Your task to perform on an android device: Find coffee shops on Maps Image 0: 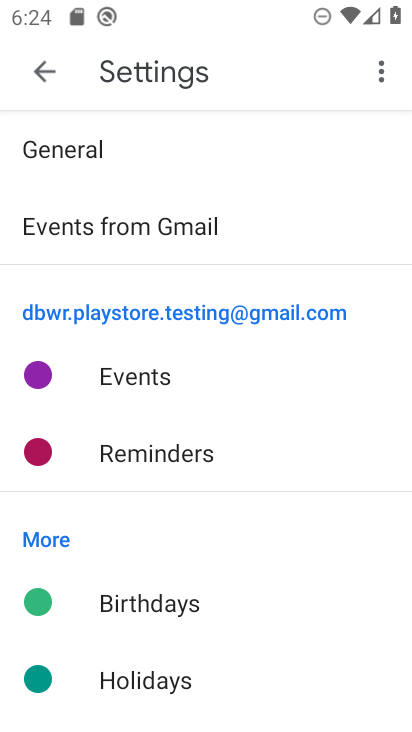
Step 0: press home button
Your task to perform on an android device: Find coffee shops on Maps Image 1: 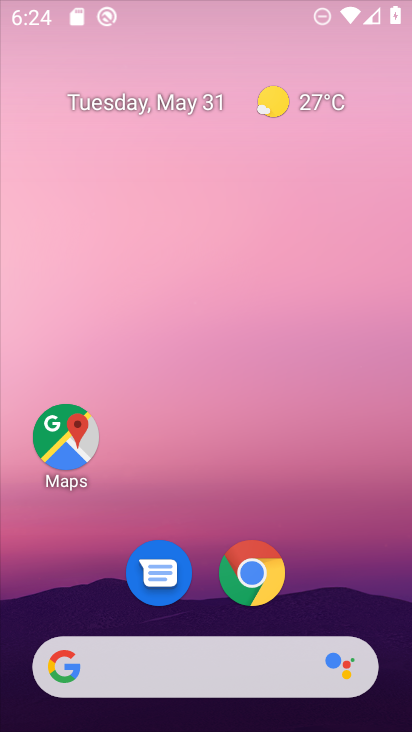
Step 1: drag from (329, 524) to (346, 151)
Your task to perform on an android device: Find coffee shops on Maps Image 2: 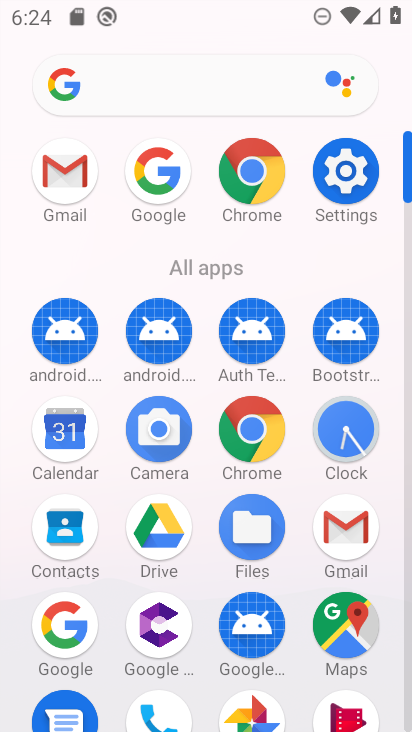
Step 2: click (344, 600)
Your task to perform on an android device: Find coffee shops on Maps Image 3: 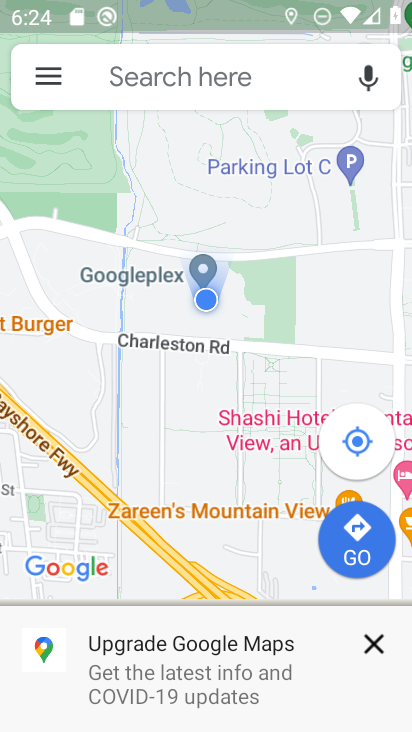
Step 3: click (147, 92)
Your task to perform on an android device: Find coffee shops on Maps Image 4: 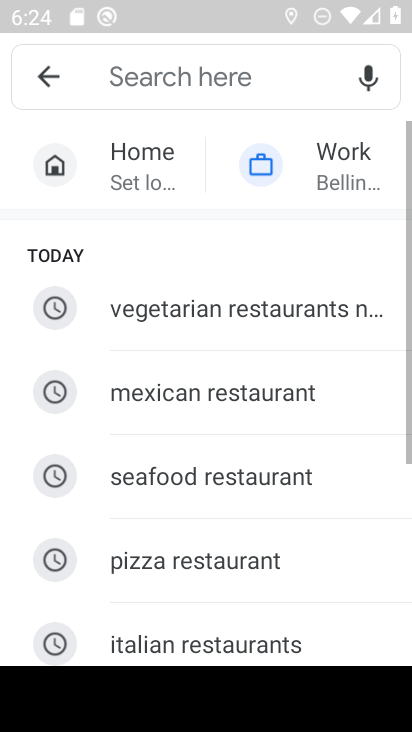
Step 4: drag from (181, 573) to (184, 185)
Your task to perform on an android device: Find coffee shops on Maps Image 5: 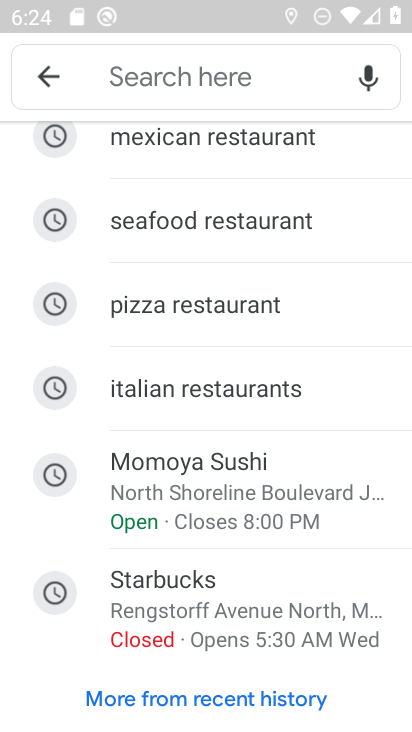
Step 5: click (204, 85)
Your task to perform on an android device: Find coffee shops on Maps Image 6: 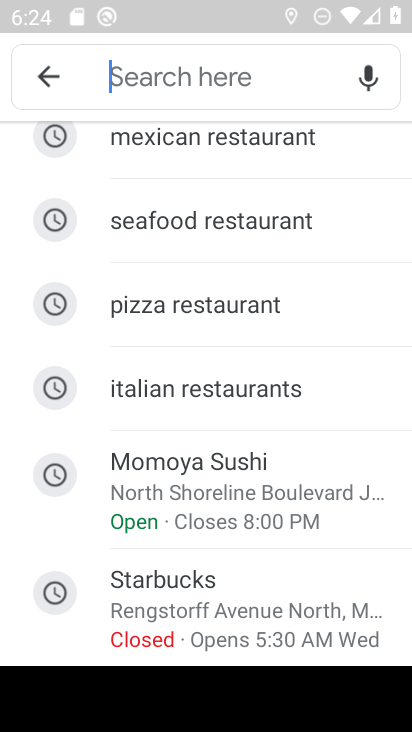
Step 6: type "coffee"
Your task to perform on an android device: Find coffee shops on Maps Image 7: 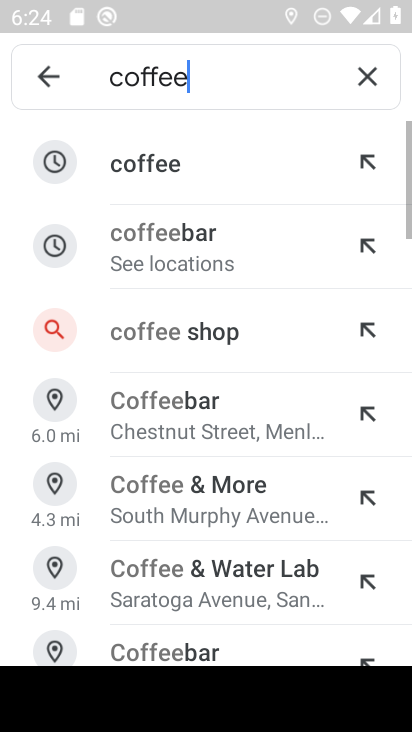
Step 7: click (219, 148)
Your task to perform on an android device: Find coffee shops on Maps Image 8: 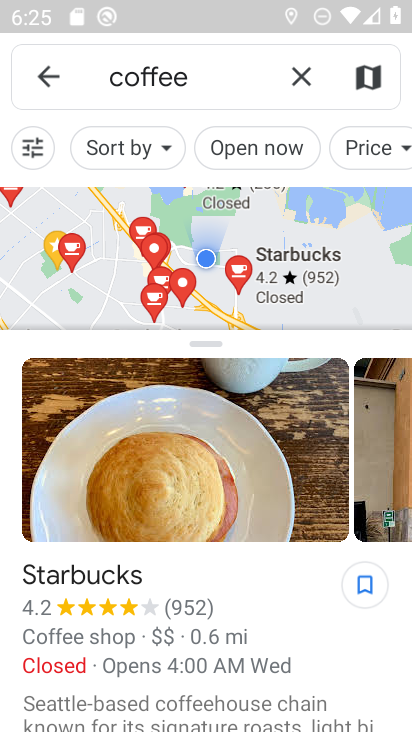
Step 8: task complete